Your task to perform on an android device: turn off notifications settings in the gmail app Image 0: 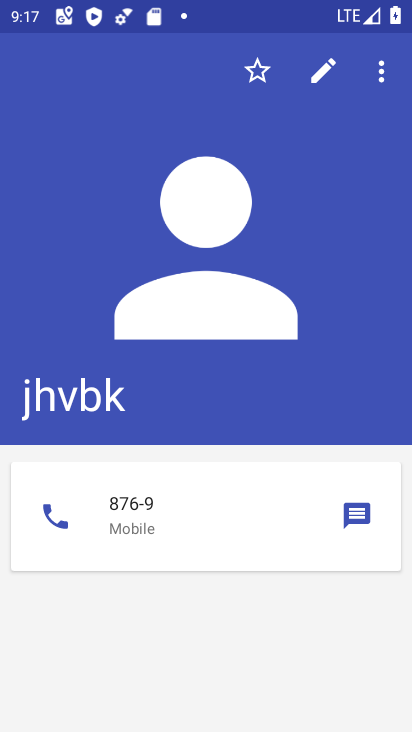
Step 0: press home button
Your task to perform on an android device: turn off notifications settings in the gmail app Image 1: 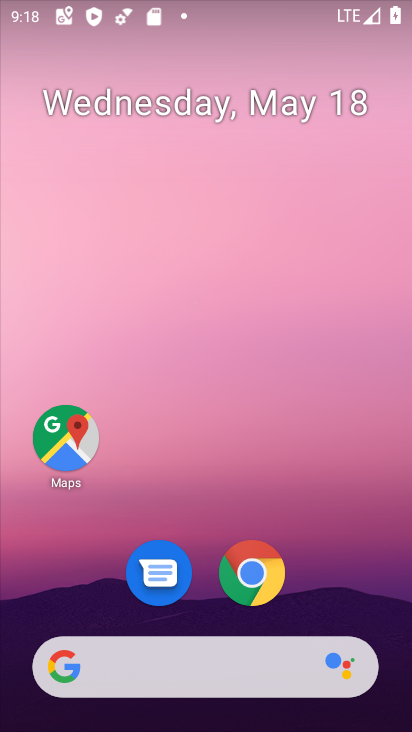
Step 1: drag from (253, 657) to (256, 27)
Your task to perform on an android device: turn off notifications settings in the gmail app Image 2: 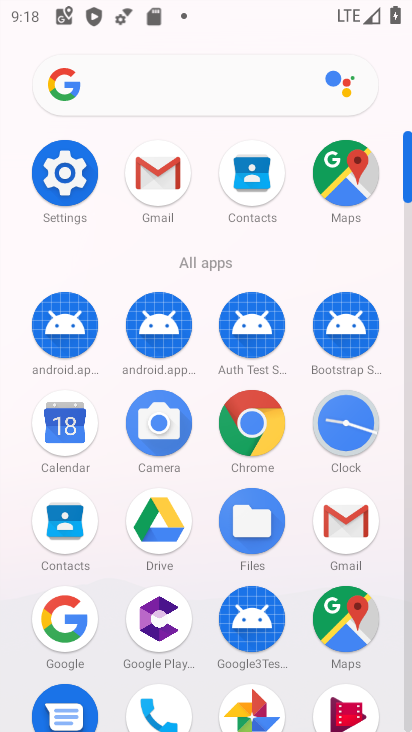
Step 2: click (164, 175)
Your task to perform on an android device: turn off notifications settings in the gmail app Image 3: 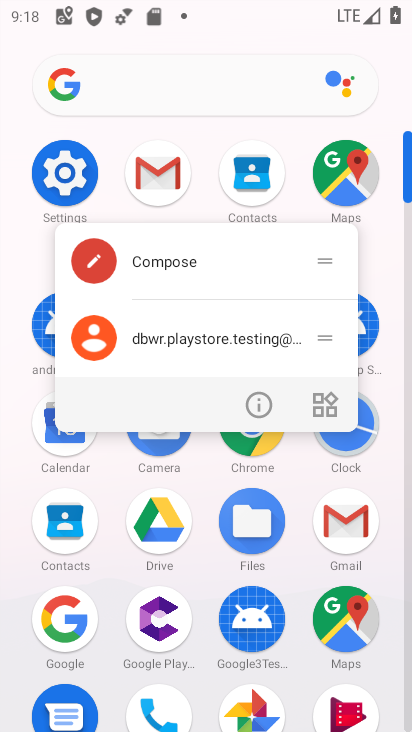
Step 3: click (258, 402)
Your task to perform on an android device: turn off notifications settings in the gmail app Image 4: 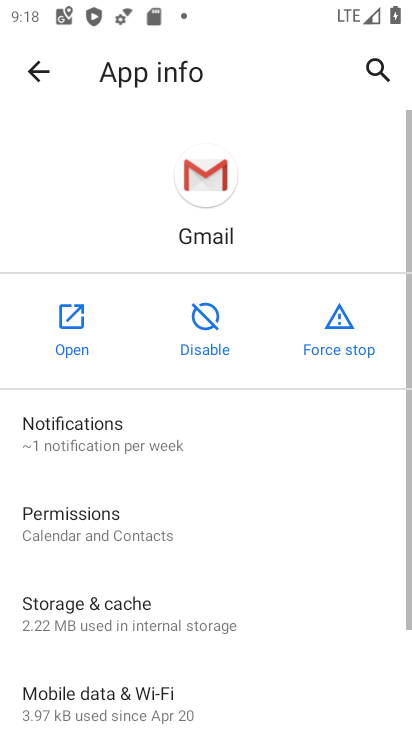
Step 4: click (192, 452)
Your task to perform on an android device: turn off notifications settings in the gmail app Image 5: 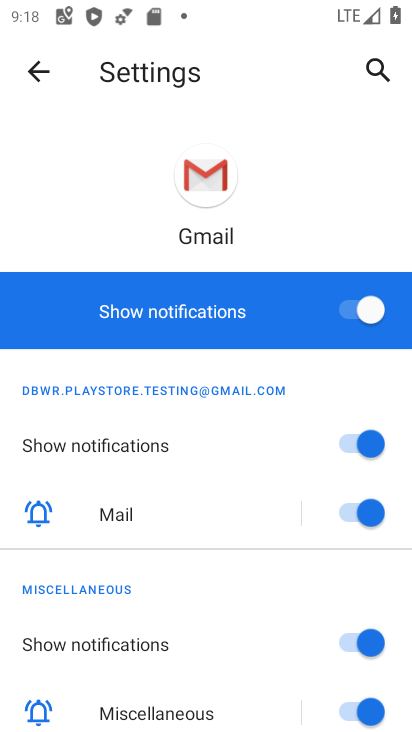
Step 5: click (363, 304)
Your task to perform on an android device: turn off notifications settings in the gmail app Image 6: 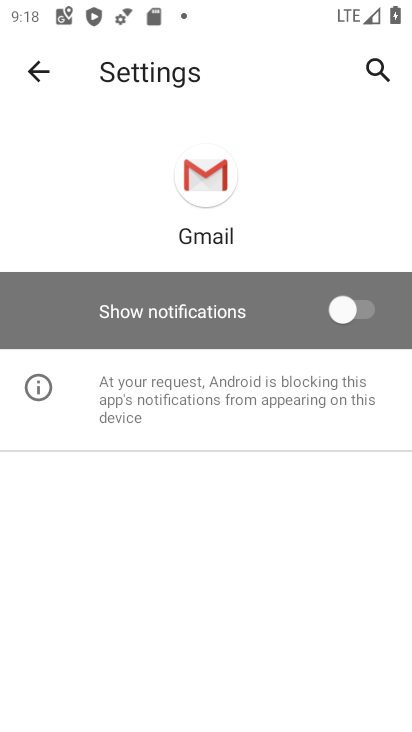
Step 6: task complete